Your task to perform on an android device: open wifi settings Image 0: 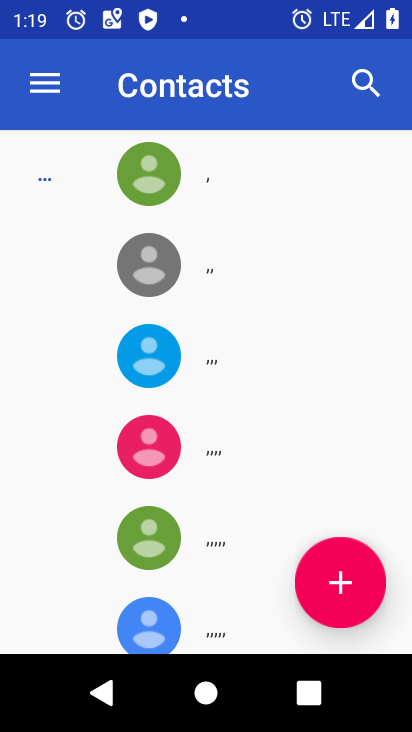
Step 0: press home button
Your task to perform on an android device: open wifi settings Image 1: 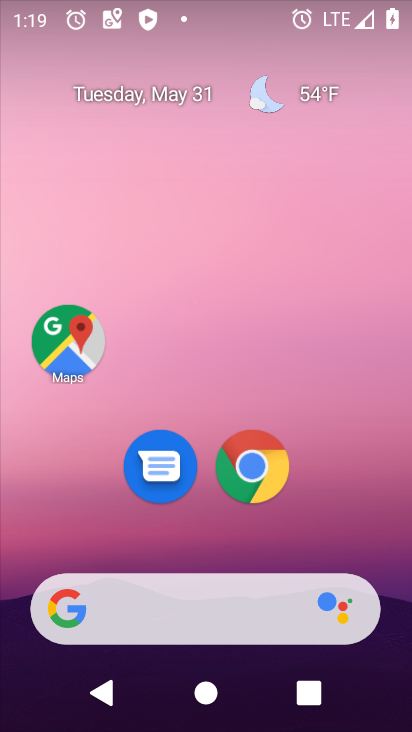
Step 1: drag from (199, 604) to (79, 21)
Your task to perform on an android device: open wifi settings Image 2: 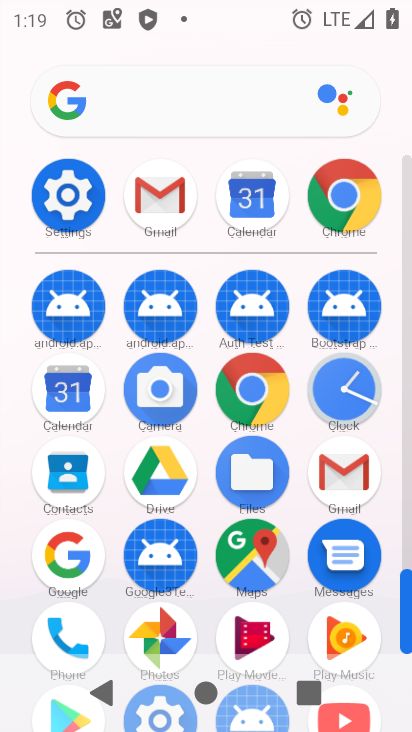
Step 2: click (96, 186)
Your task to perform on an android device: open wifi settings Image 3: 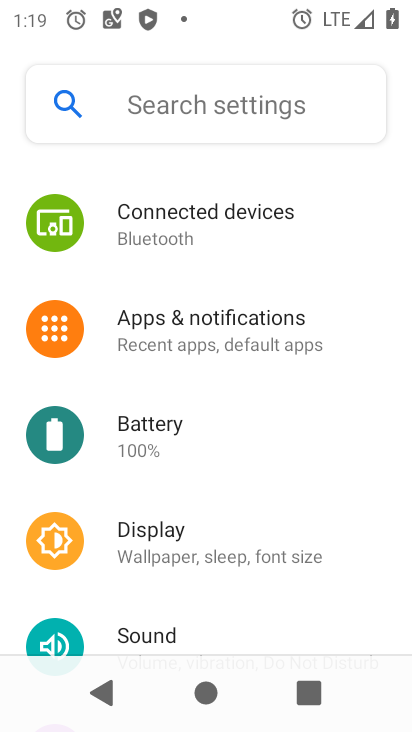
Step 3: drag from (200, 213) to (242, 573)
Your task to perform on an android device: open wifi settings Image 4: 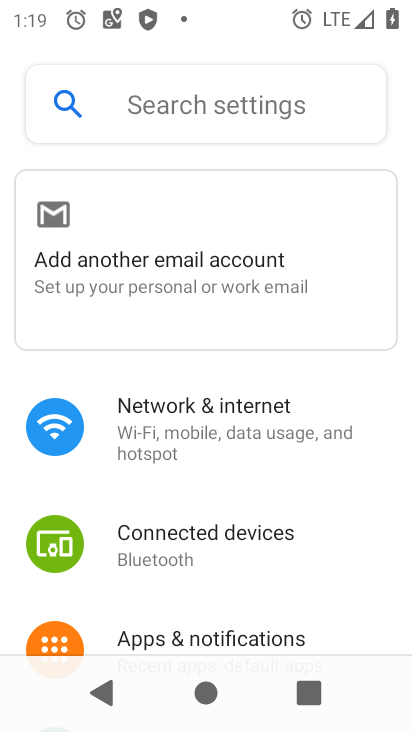
Step 4: click (165, 404)
Your task to perform on an android device: open wifi settings Image 5: 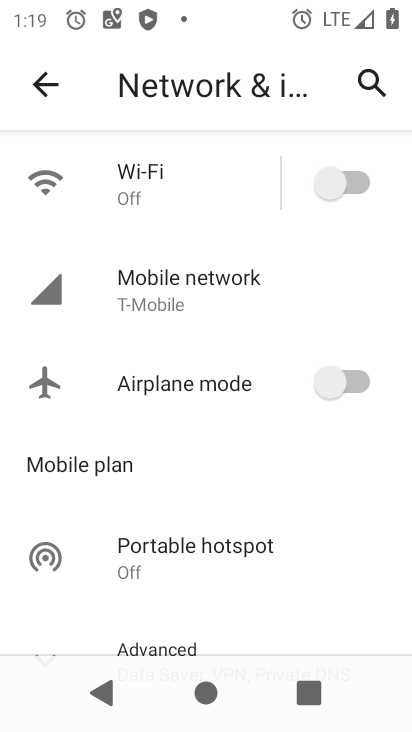
Step 5: click (138, 176)
Your task to perform on an android device: open wifi settings Image 6: 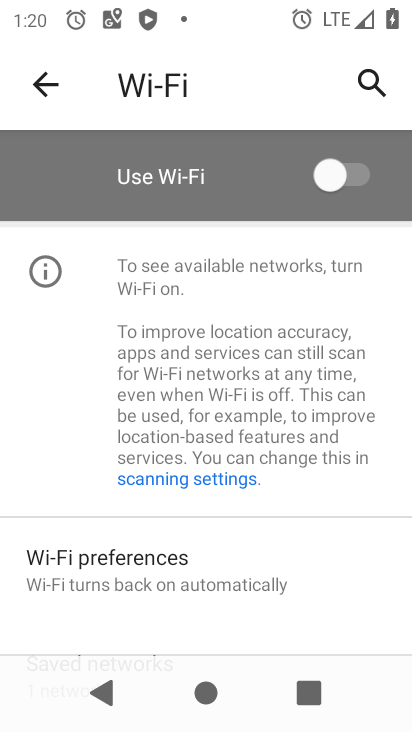
Step 6: task complete